Your task to perform on an android device: set the stopwatch Image 0: 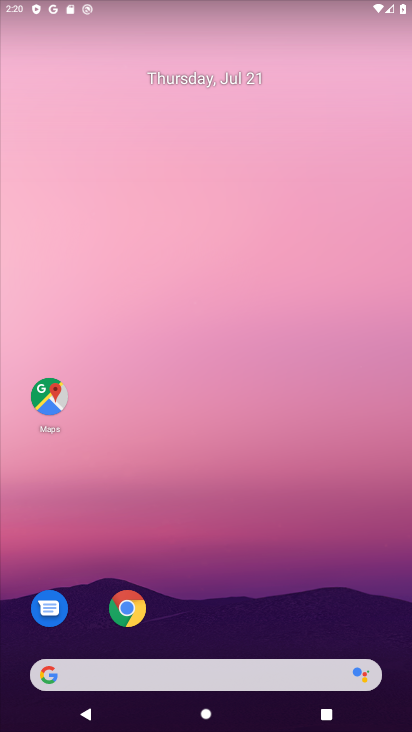
Step 0: drag from (215, 646) to (187, 153)
Your task to perform on an android device: set the stopwatch Image 1: 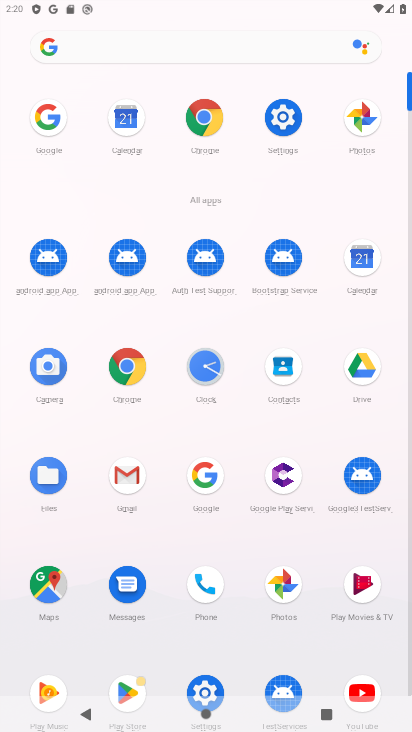
Step 1: click (204, 379)
Your task to perform on an android device: set the stopwatch Image 2: 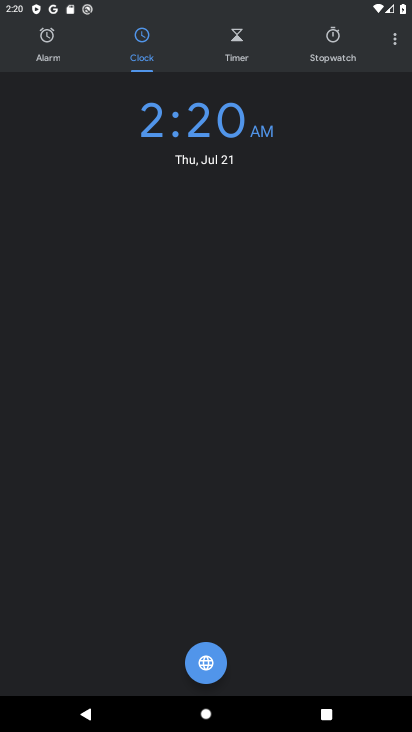
Step 2: click (327, 43)
Your task to perform on an android device: set the stopwatch Image 3: 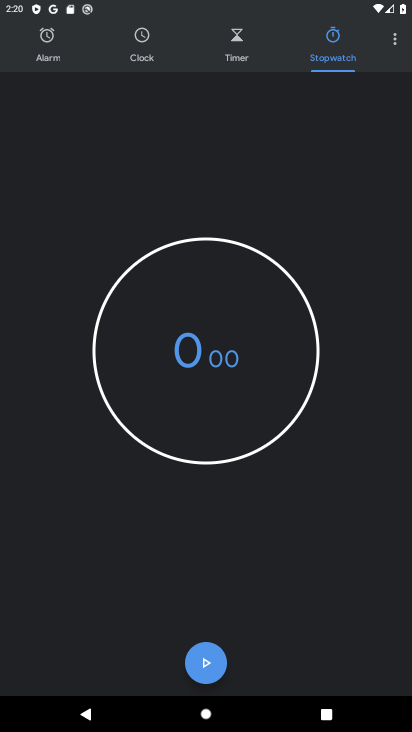
Step 3: task complete